Your task to perform on an android device: uninstall "Venmo" Image 0: 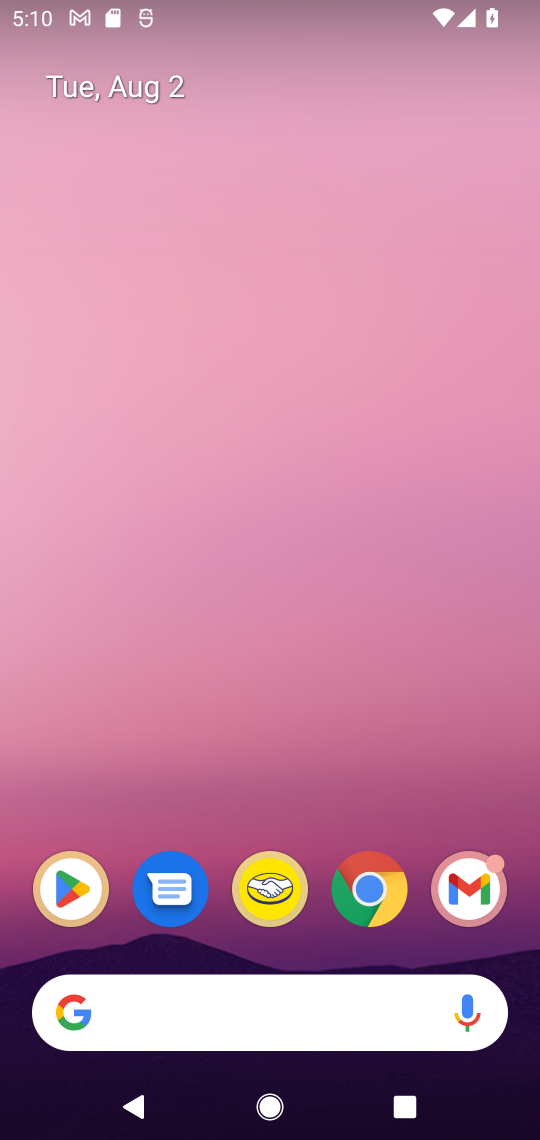
Step 0: drag from (379, 672) to (401, 151)
Your task to perform on an android device: uninstall "Venmo" Image 1: 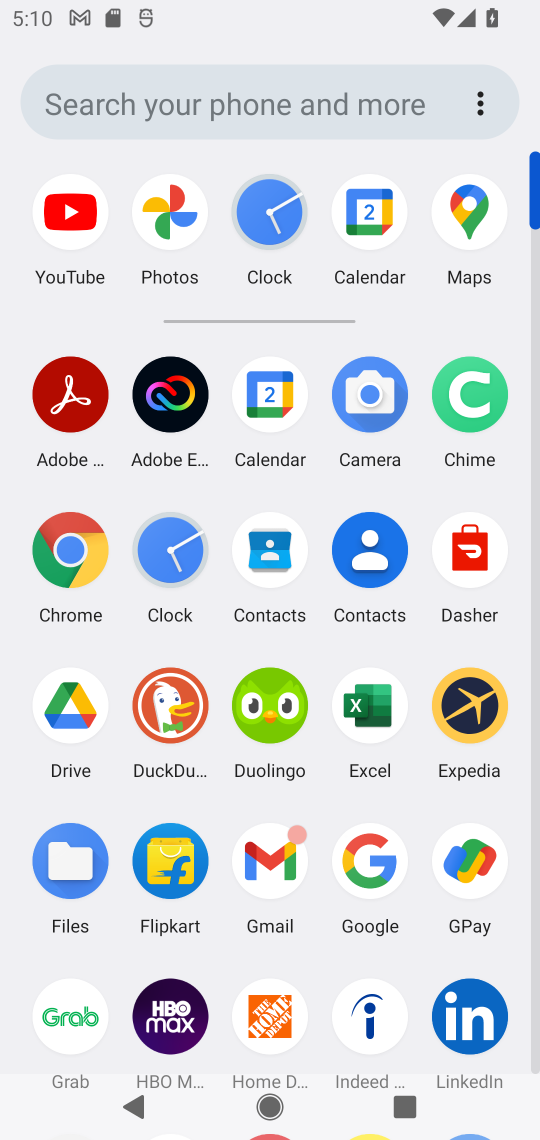
Step 1: drag from (505, 910) to (511, 631)
Your task to perform on an android device: uninstall "Venmo" Image 2: 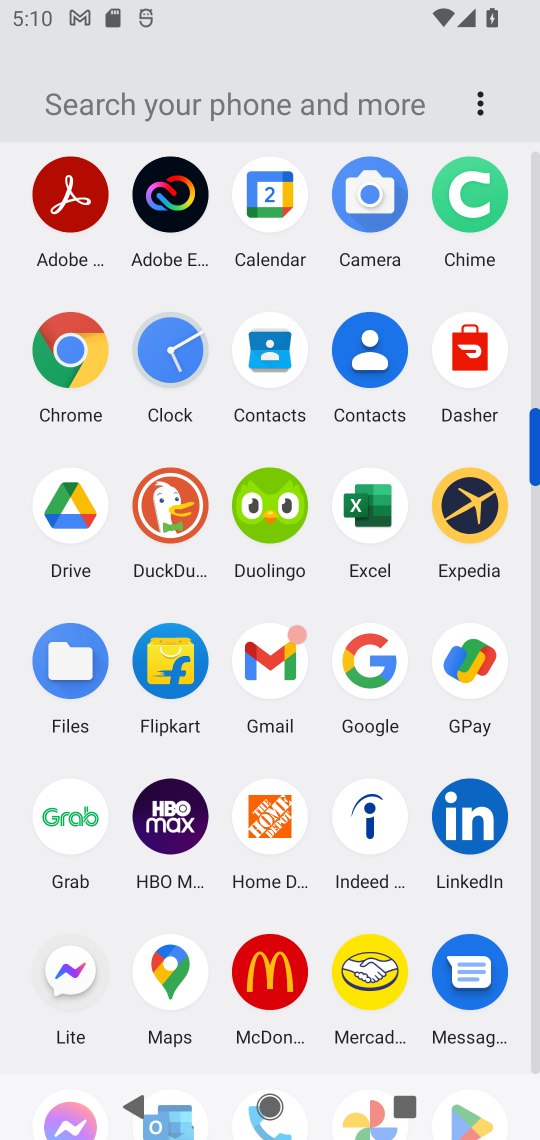
Step 2: drag from (509, 926) to (494, 494)
Your task to perform on an android device: uninstall "Venmo" Image 3: 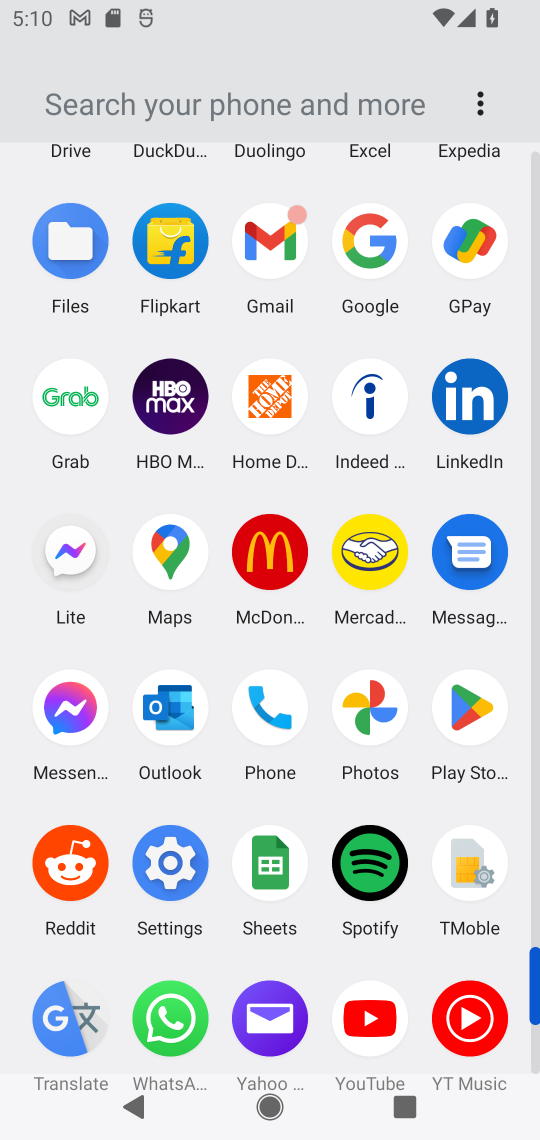
Step 3: click (459, 716)
Your task to perform on an android device: uninstall "Venmo" Image 4: 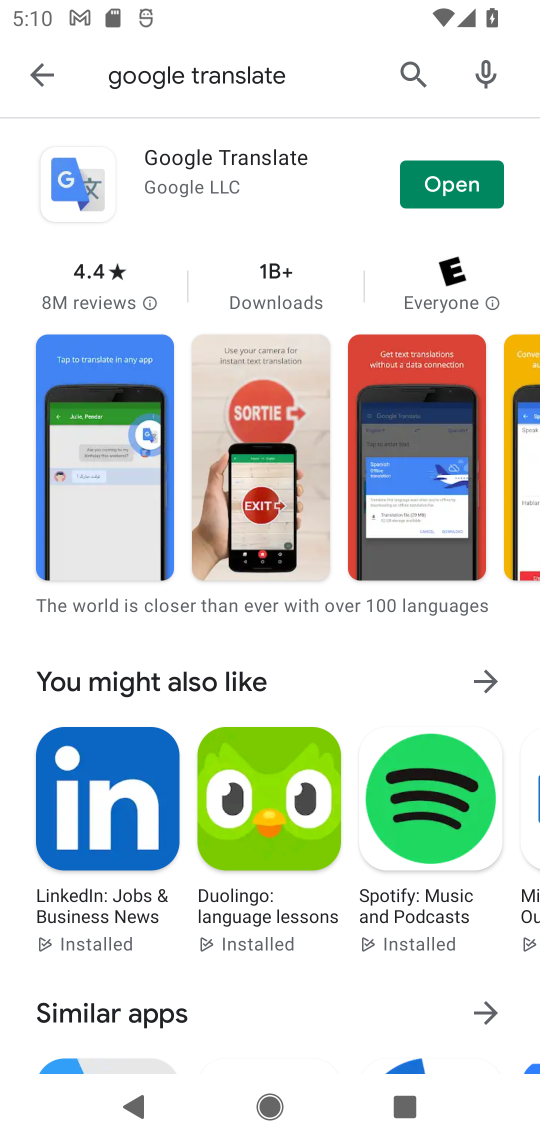
Step 4: click (412, 73)
Your task to perform on an android device: uninstall "Venmo" Image 5: 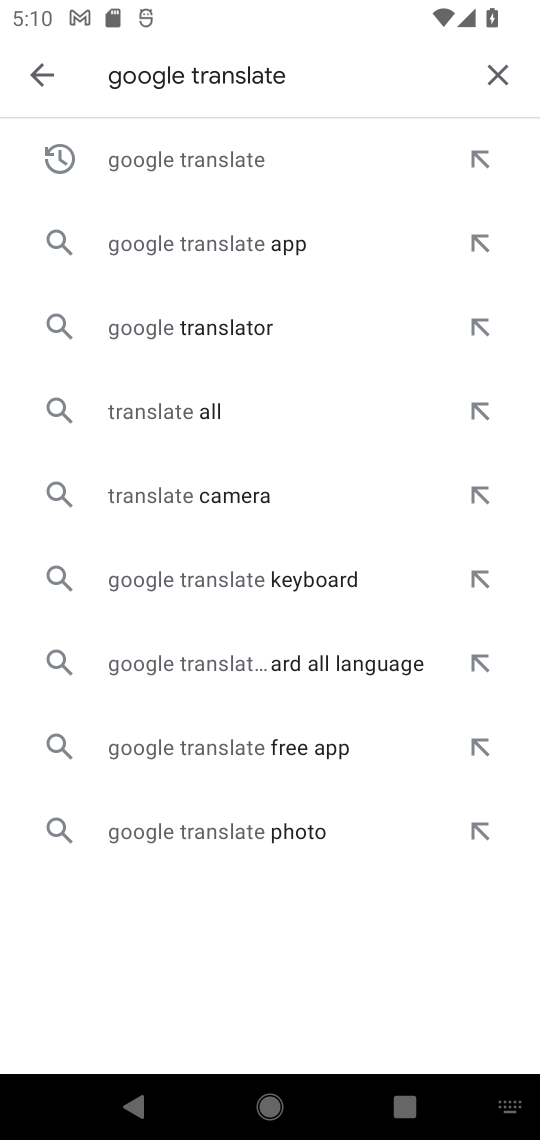
Step 5: click (502, 69)
Your task to perform on an android device: uninstall "Venmo" Image 6: 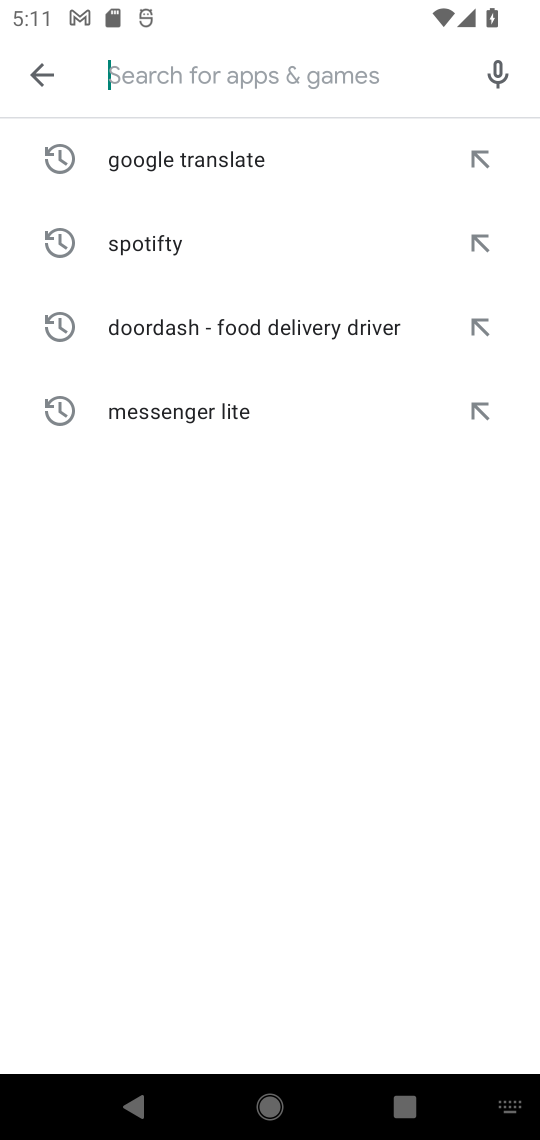
Step 6: type "venmo"
Your task to perform on an android device: uninstall "Venmo" Image 7: 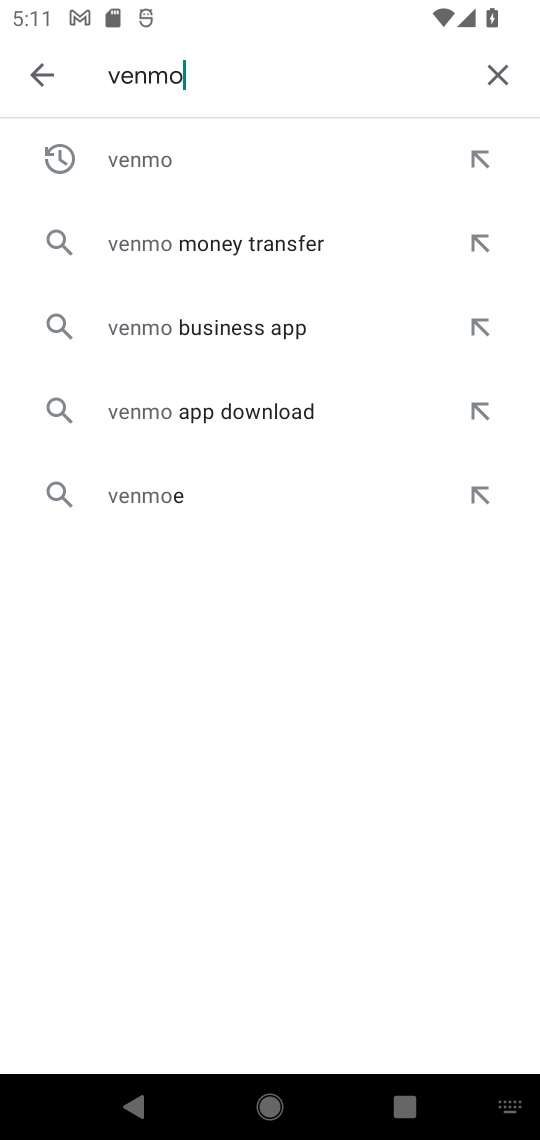
Step 7: click (181, 167)
Your task to perform on an android device: uninstall "Venmo" Image 8: 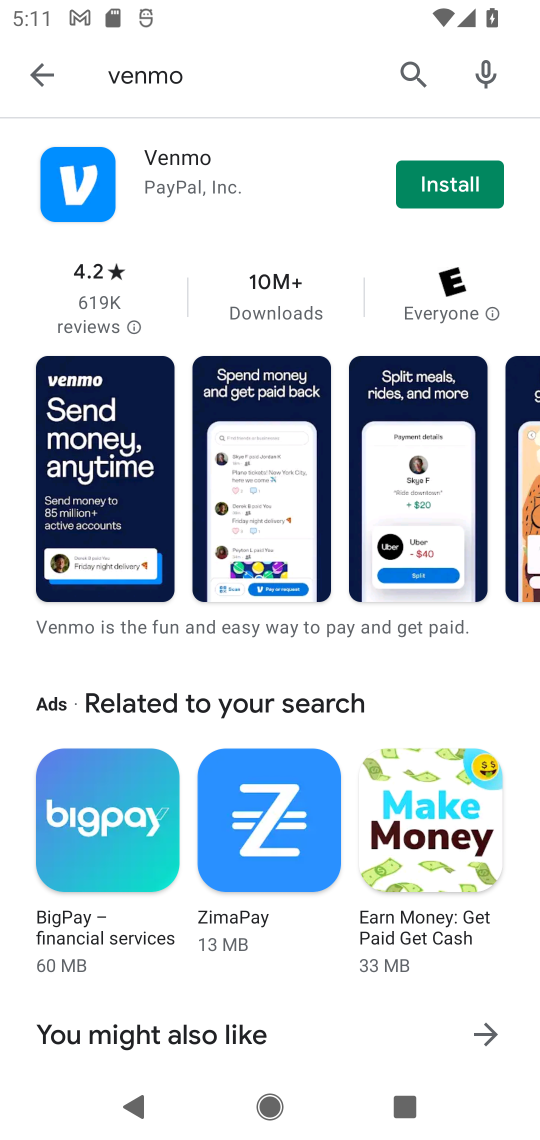
Step 8: task complete